Your task to perform on an android device: What's the weather going to be tomorrow? Image 0: 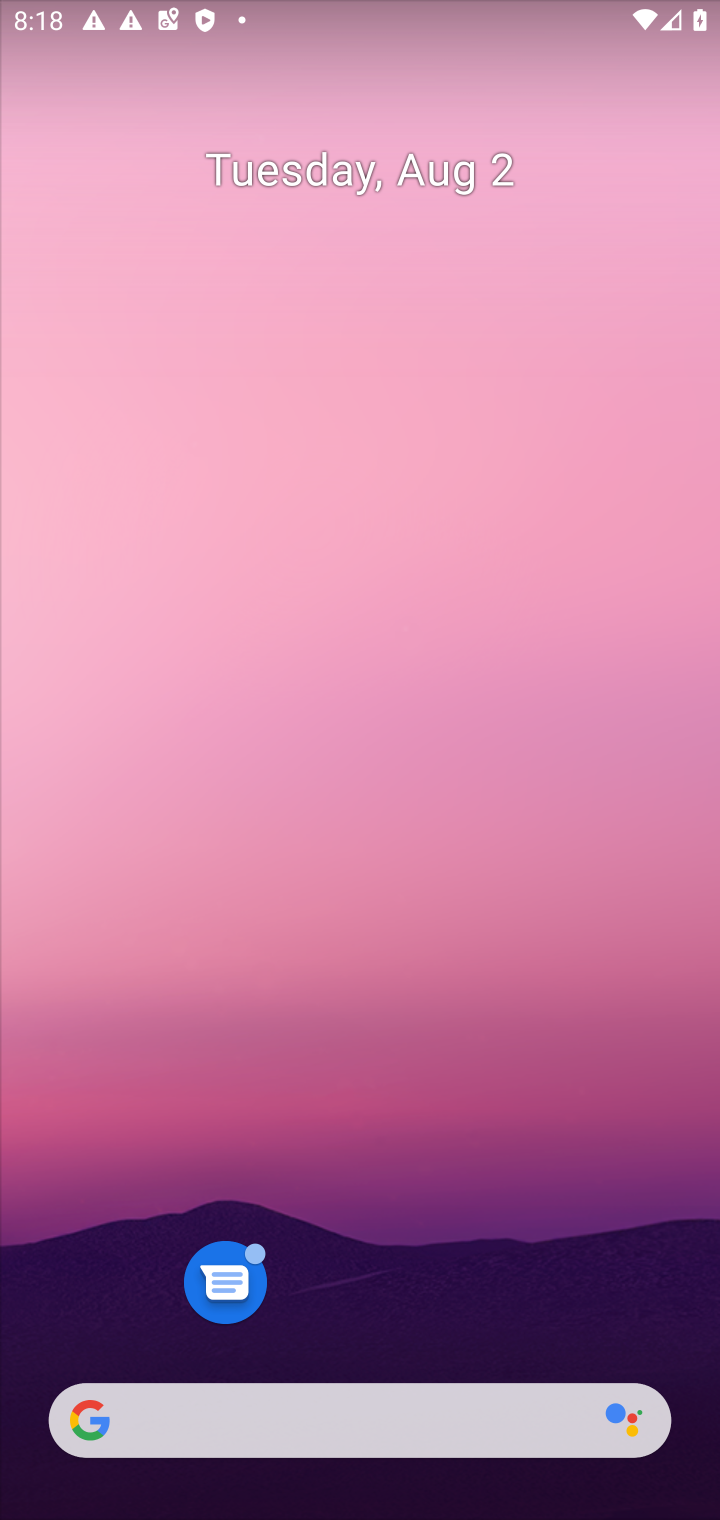
Step 0: click (364, 1414)
Your task to perform on an android device: What's the weather going to be tomorrow? Image 1: 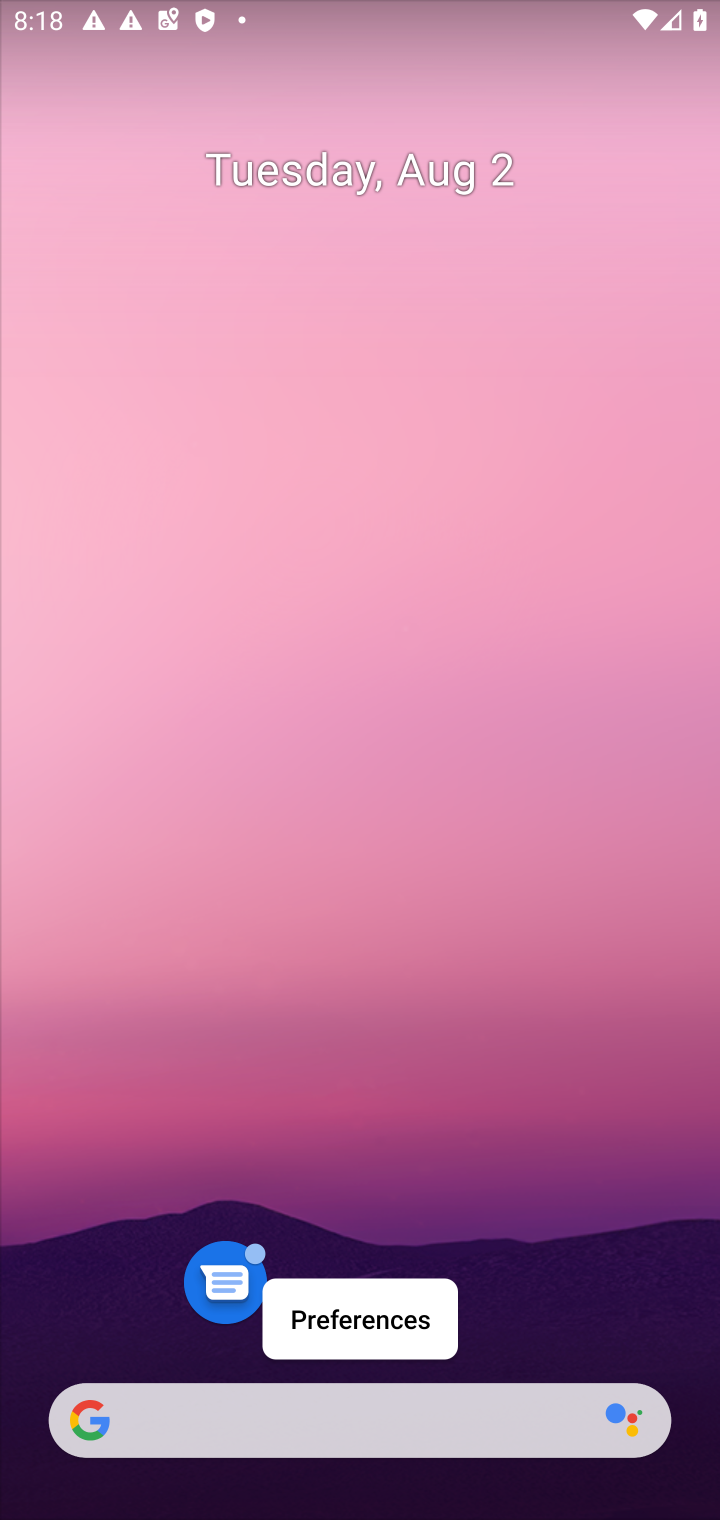
Step 1: click (347, 1400)
Your task to perform on an android device: What's the weather going to be tomorrow? Image 2: 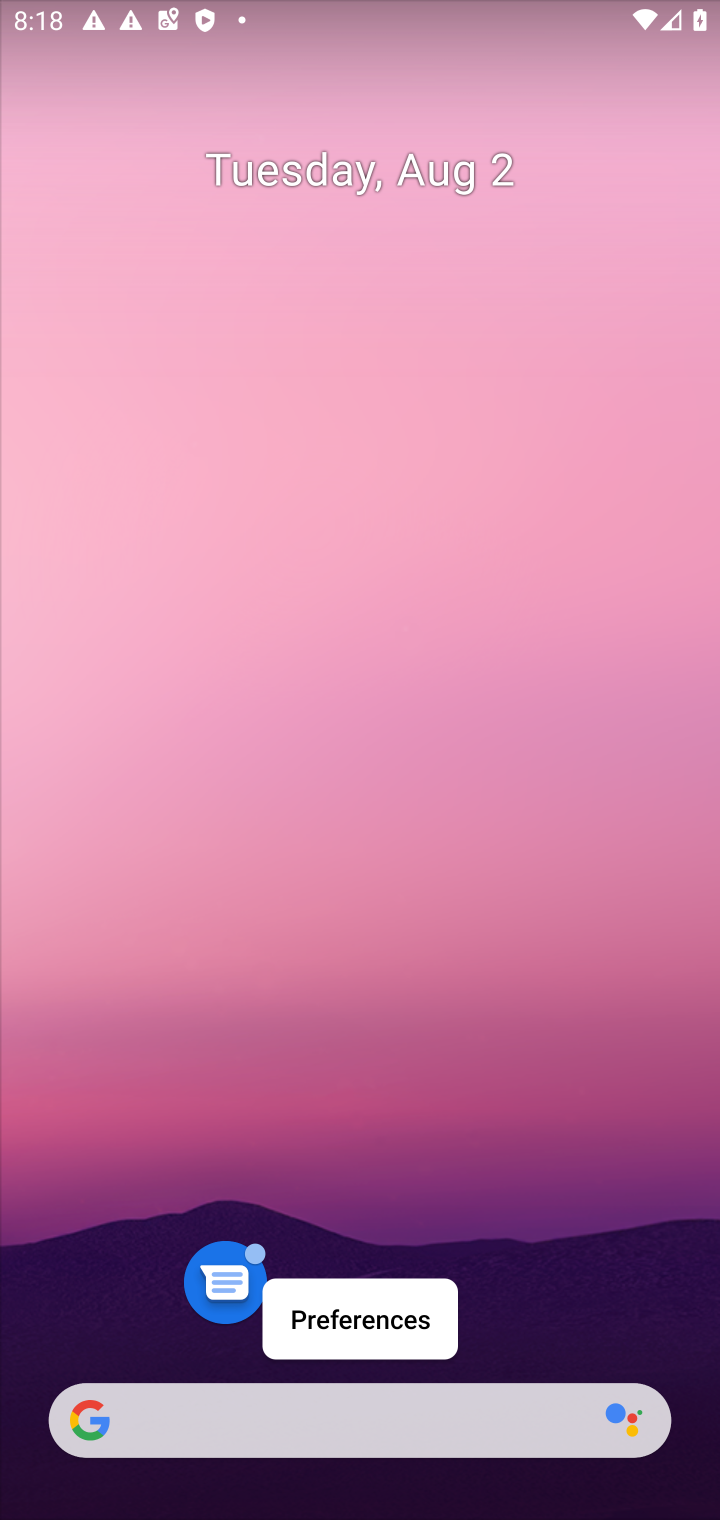
Step 2: click (347, 1400)
Your task to perform on an android device: What's the weather going to be tomorrow? Image 3: 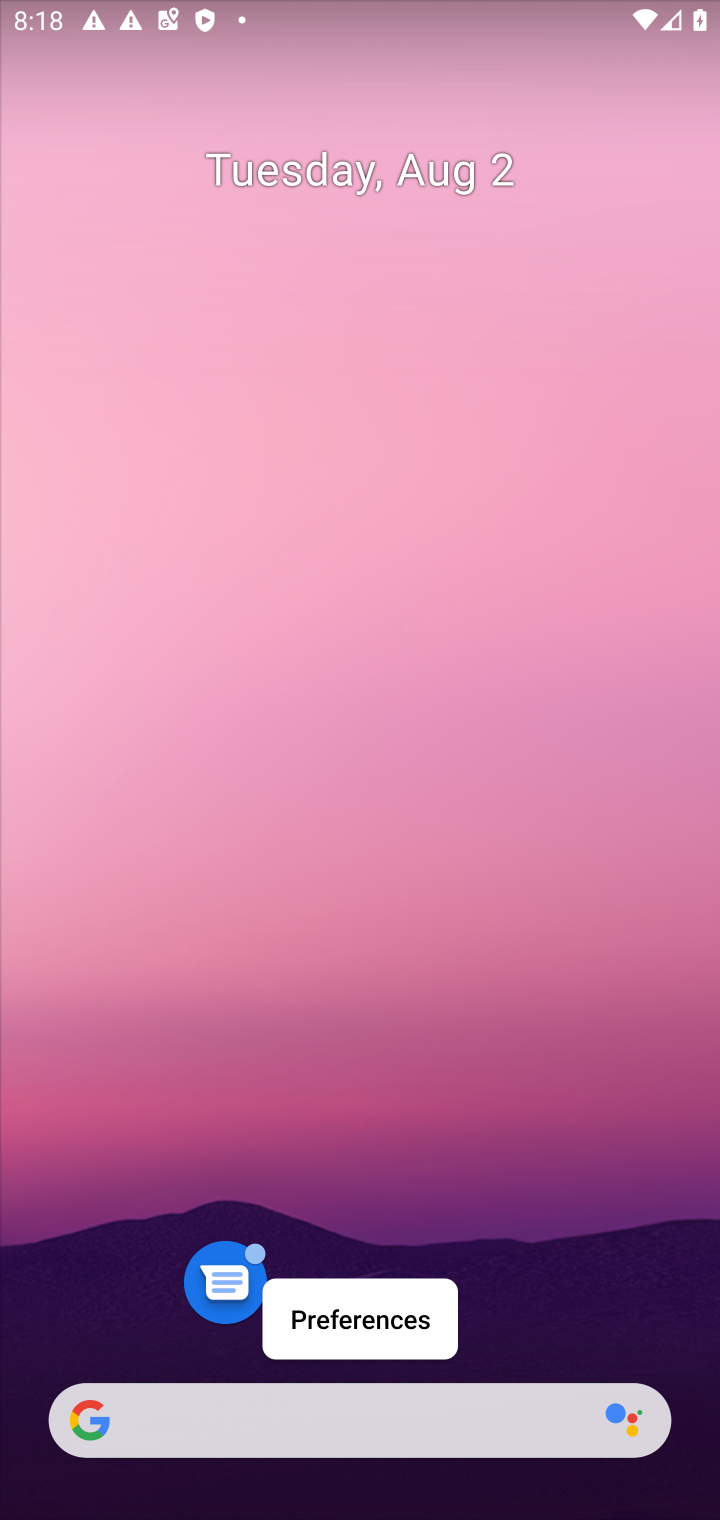
Step 3: click (347, 1400)
Your task to perform on an android device: What's the weather going to be tomorrow? Image 4: 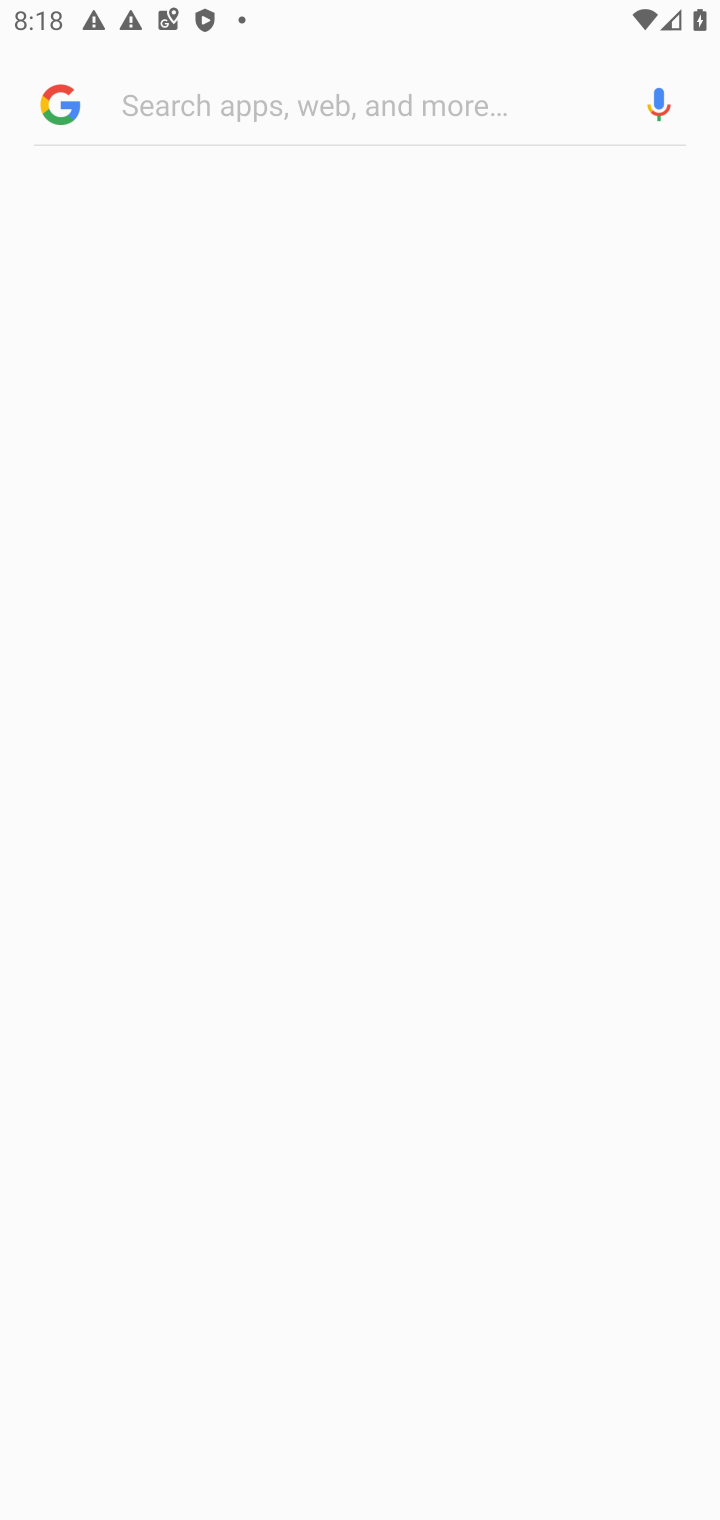
Step 4: click (347, 1400)
Your task to perform on an android device: What's the weather going to be tomorrow? Image 5: 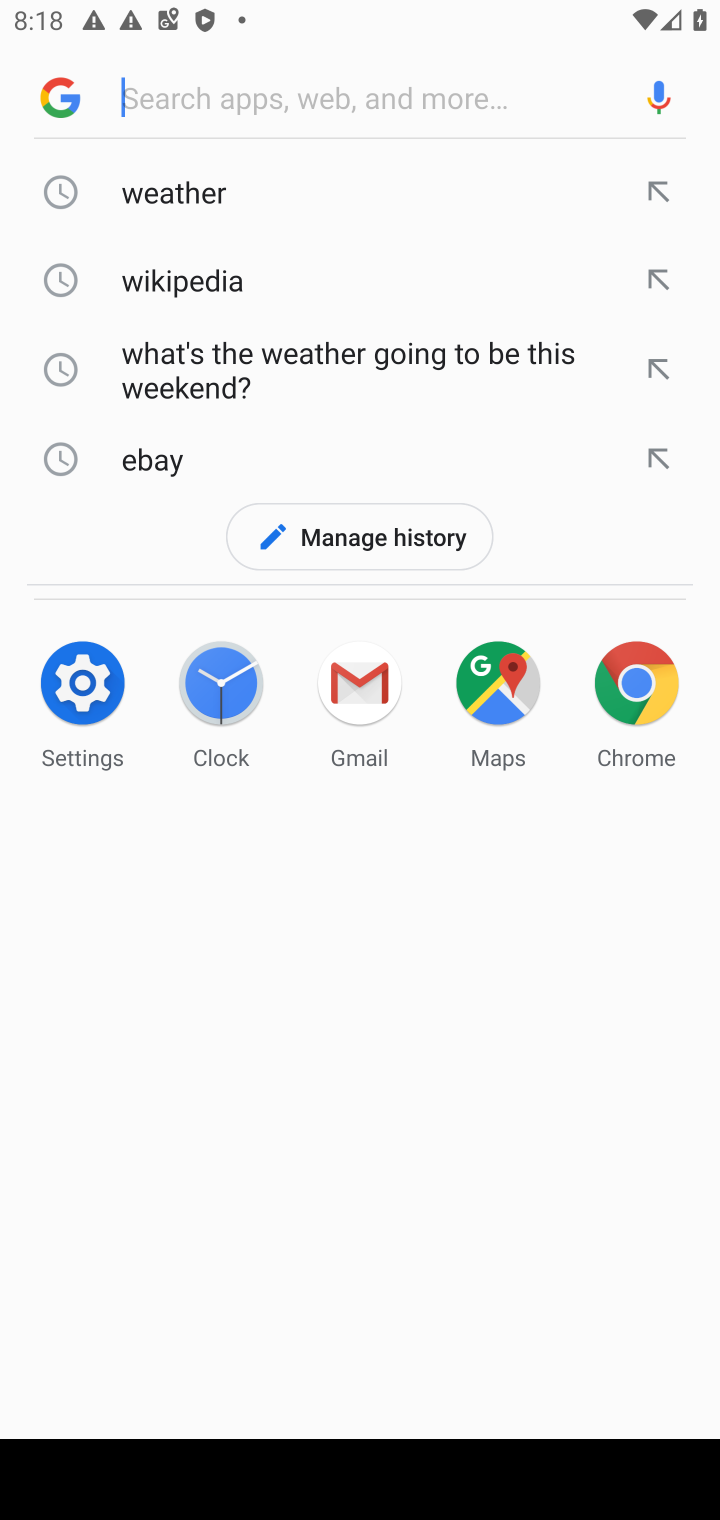
Step 5: click (131, 179)
Your task to perform on an android device: What's the weather going to be tomorrow? Image 6: 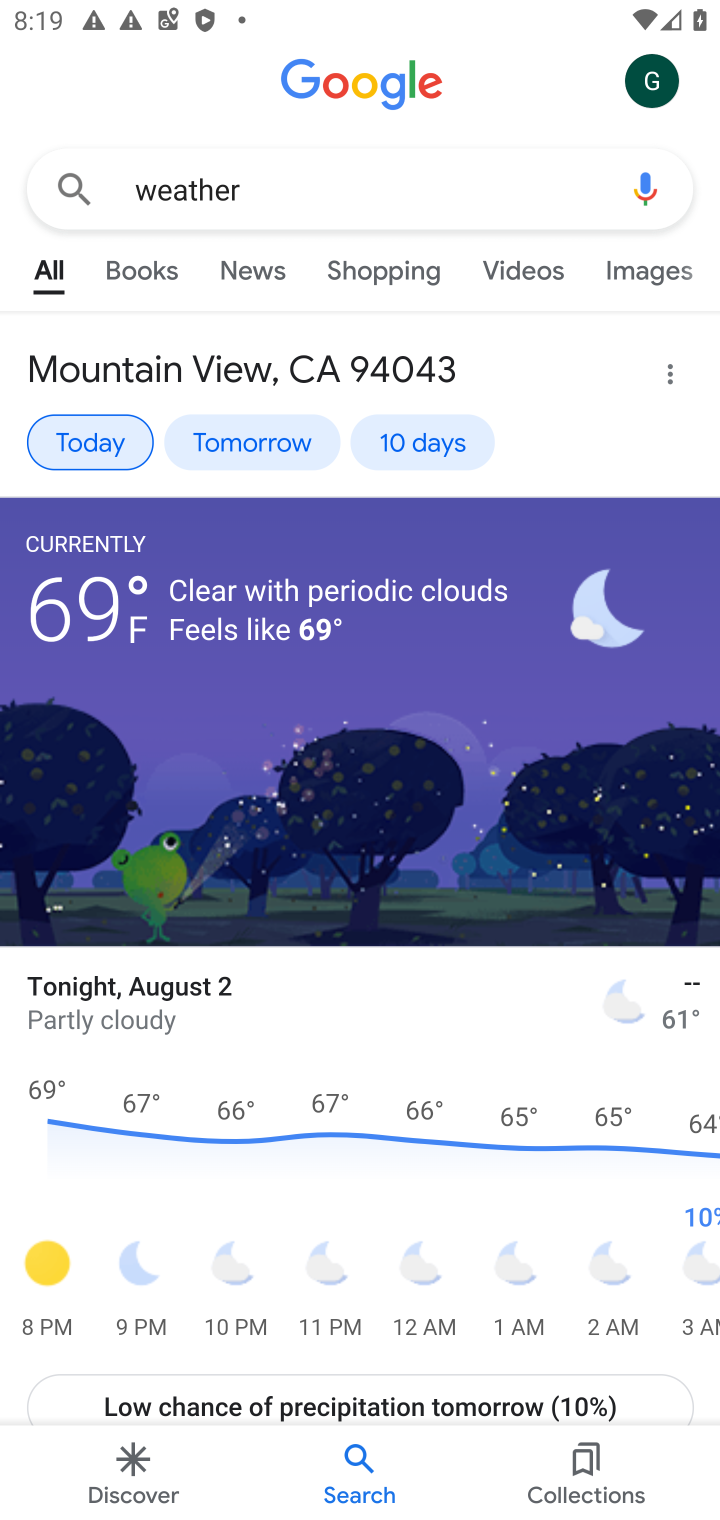
Step 6: task complete